Your task to perform on an android device: delete location history Image 0: 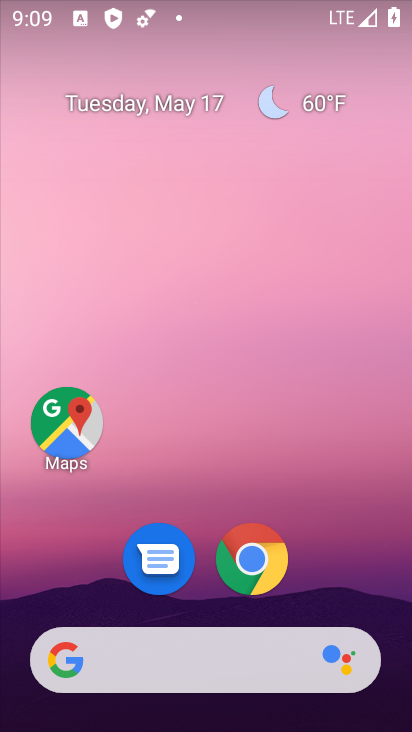
Step 0: drag from (215, 603) to (269, 157)
Your task to perform on an android device: delete location history Image 1: 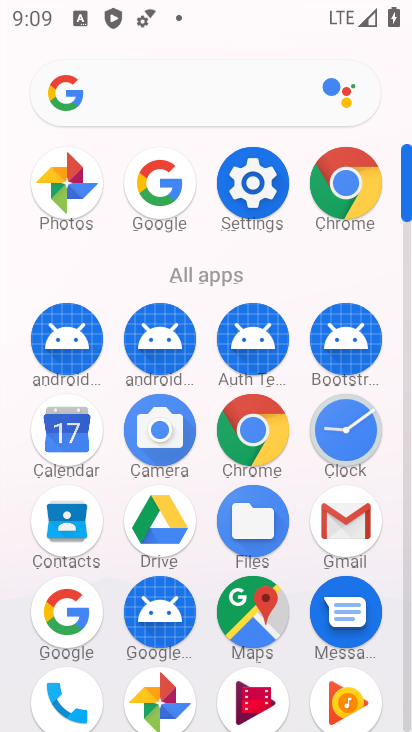
Step 1: click (272, 167)
Your task to perform on an android device: delete location history Image 2: 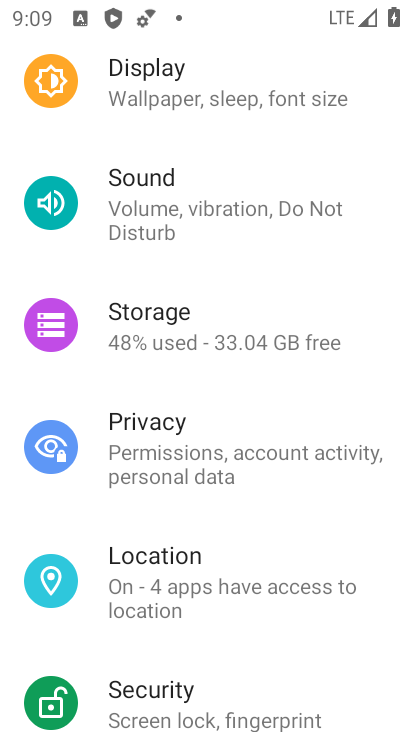
Step 2: press home button
Your task to perform on an android device: delete location history Image 3: 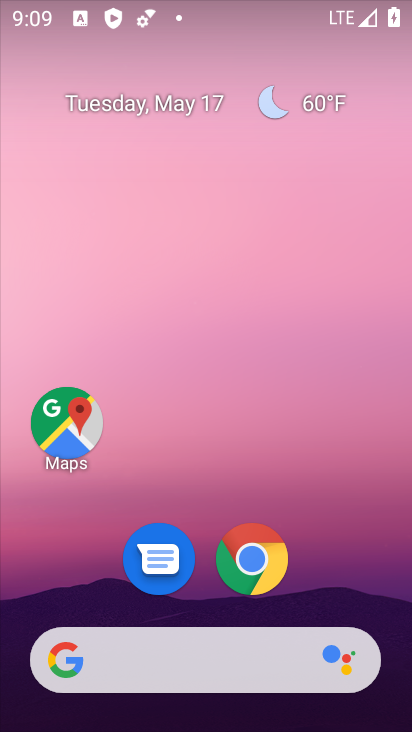
Step 3: click (81, 438)
Your task to perform on an android device: delete location history Image 4: 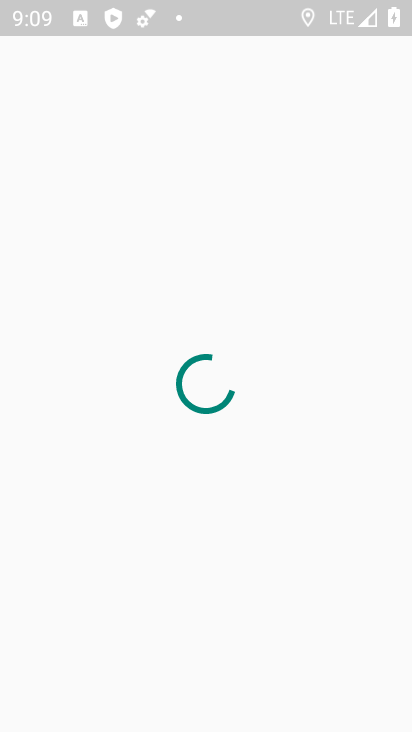
Step 4: click (63, 87)
Your task to perform on an android device: delete location history Image 5: 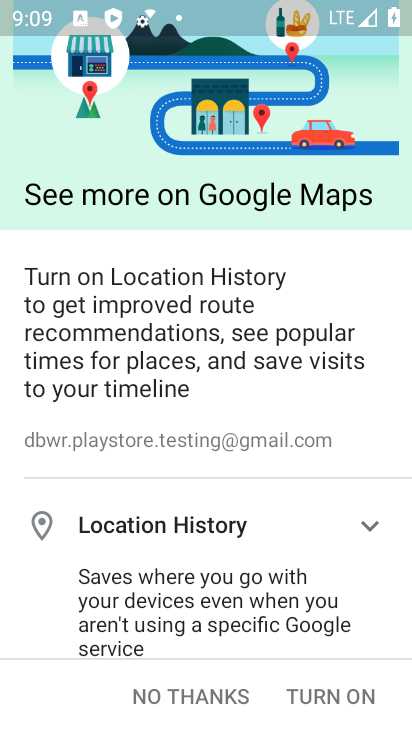
Step 5: click (320, 673)
Your task to perform on an android device: delete location history Image 6: 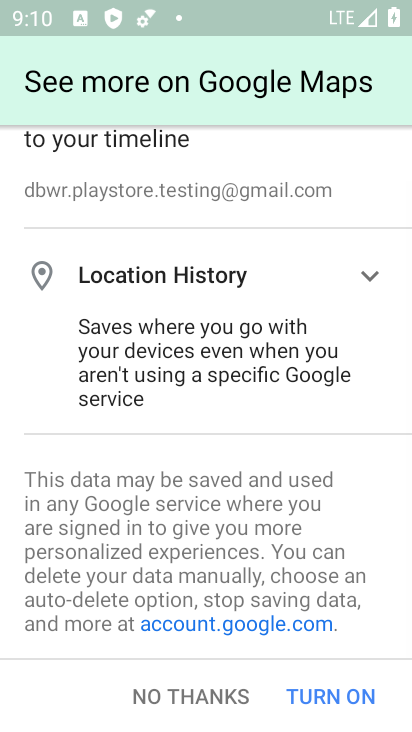
Step 6: click (320, 674)
Your task to perform on an android device: delete location history Image 7: 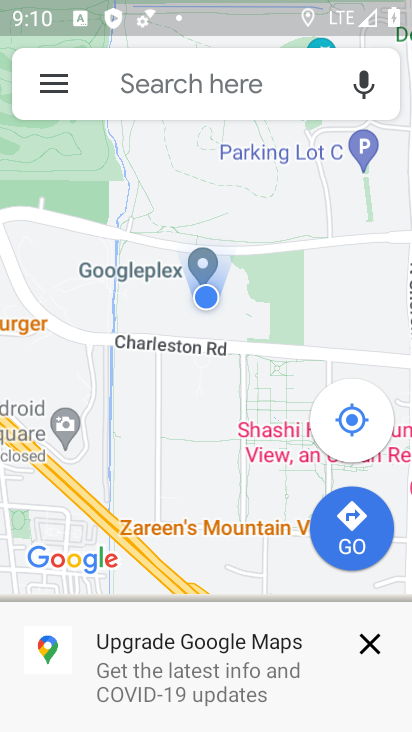
Step 7: click (37, 87)
Your task to perform on an android device: delete location history Image 8: 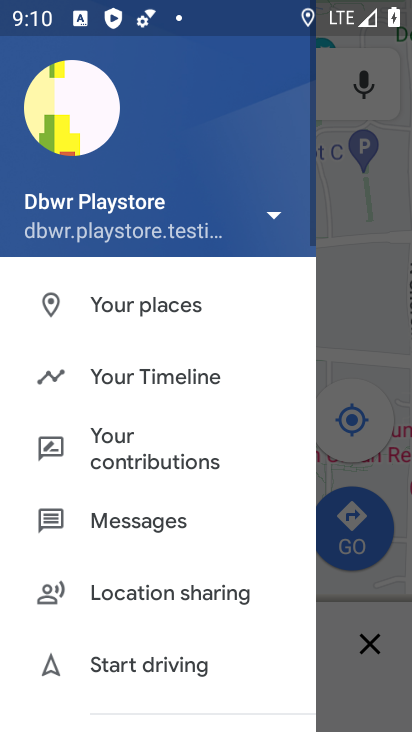
Step 8: click (128, 366)
Your task to perform on an android device: delete location history Image 9: 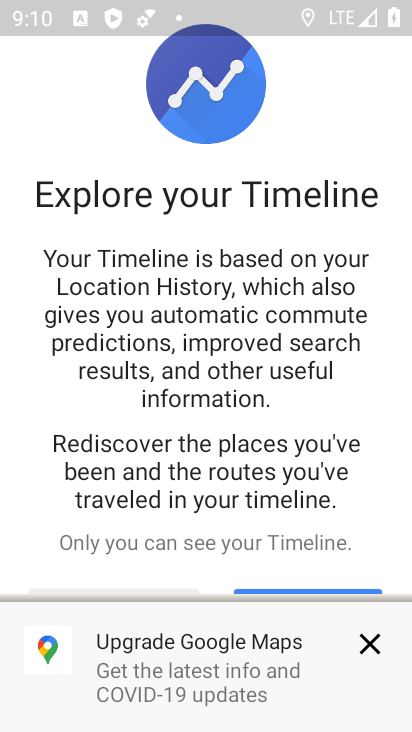
Step 9: click (366, 644)
Your task to perform on an android device: delete location history Image 10: 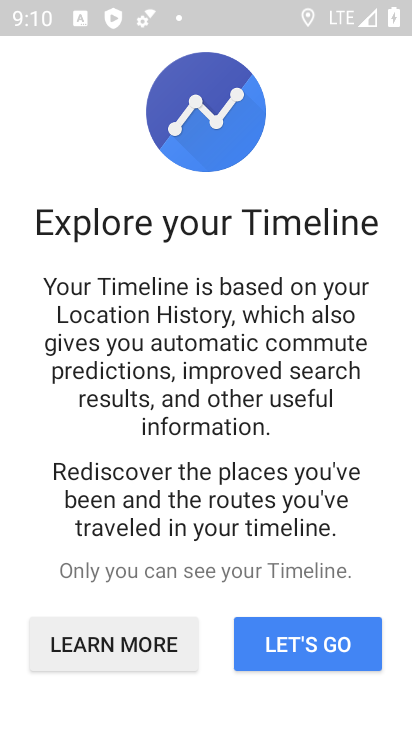
Step 10: click (345, 648)
Your task to perform on an android device: delete location history Image 11: 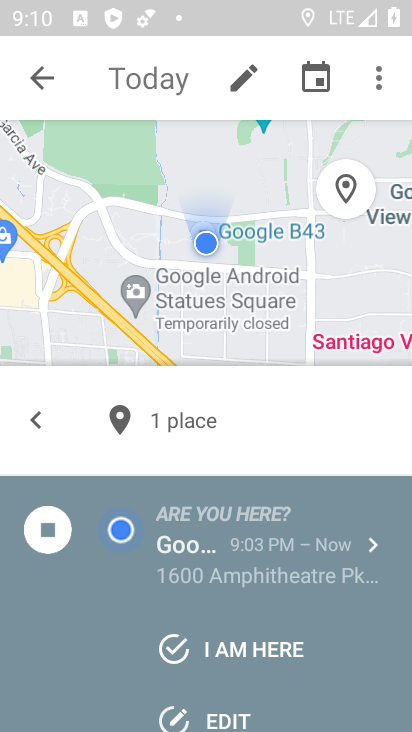
Step 11: click (378, 69)
Your task to perform on an android device: delete location history Image 12: 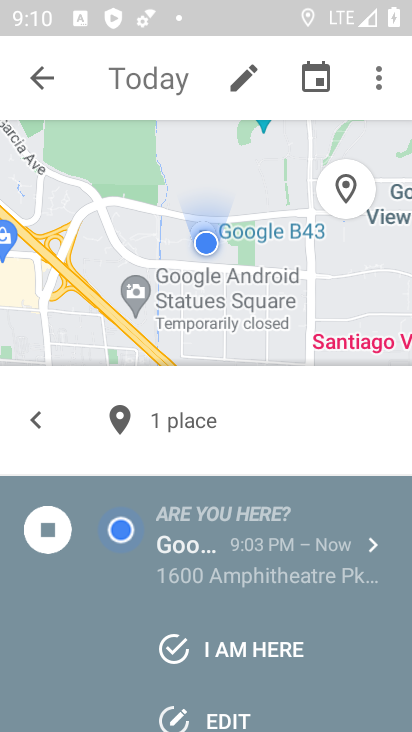
Step 12: click (376, 75)
Your task to perform on an android device: delete location history Image 13: 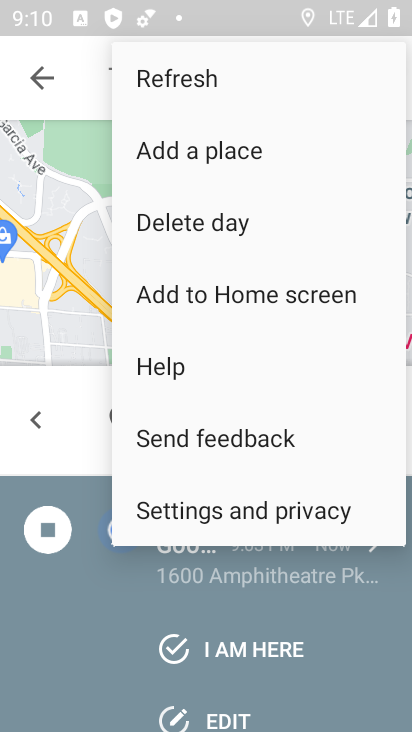
Step 13: click (194, 504)
Your task to perform on an android device: delete location history Image 14: 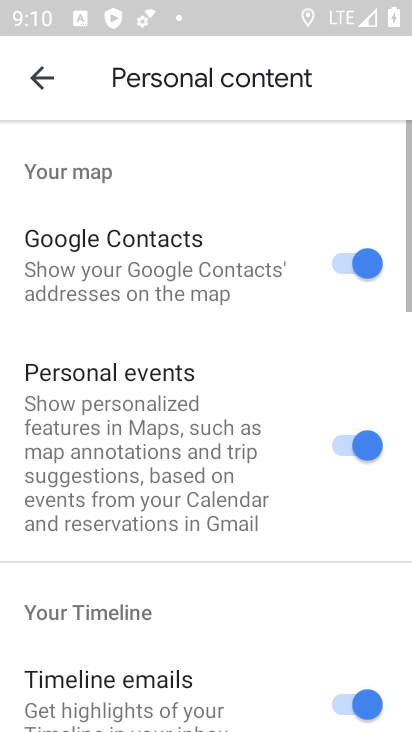
Step 14: drag from (221, 630) to (232, 343)
Your task to perform on an android device: delete location history Image 15: 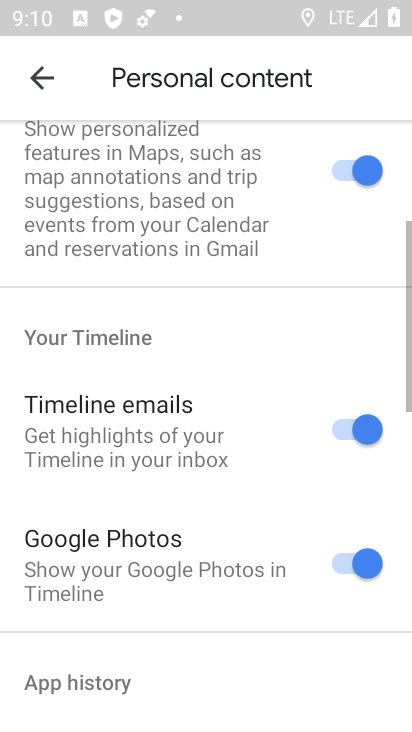
Step 15: drag from (218, 527) to (219, 248)
Your task to perform on an android device: delete location history Image 16: 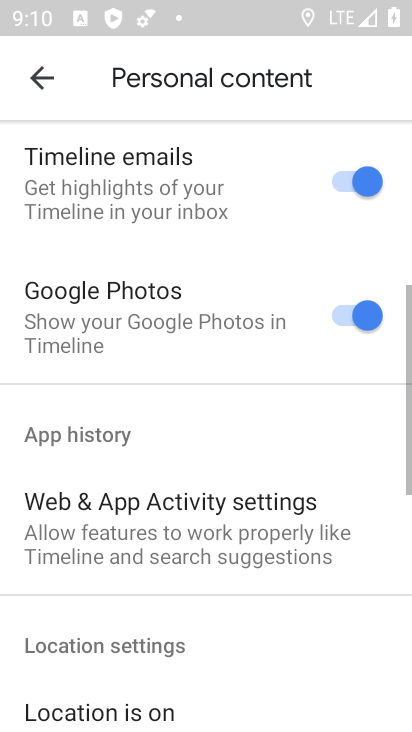
Step 16: drag from (181, 488) to (181, 262)
Your task to perform on an android device: delete location history Image 17: 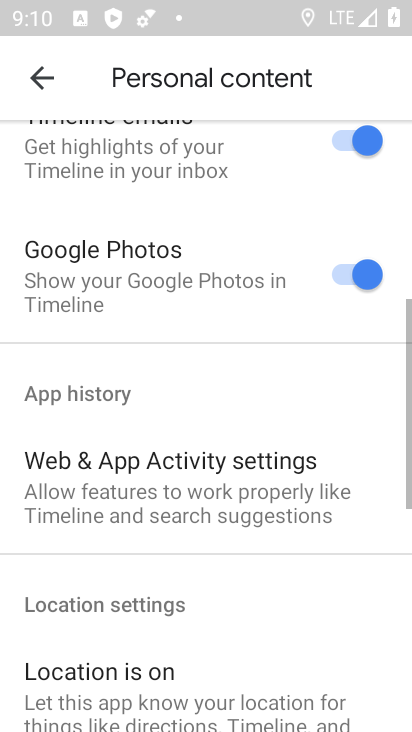
Step 17: drag from (185, 621) to (196, 328)
Your task to perform on an android device: delete location history Image 18: 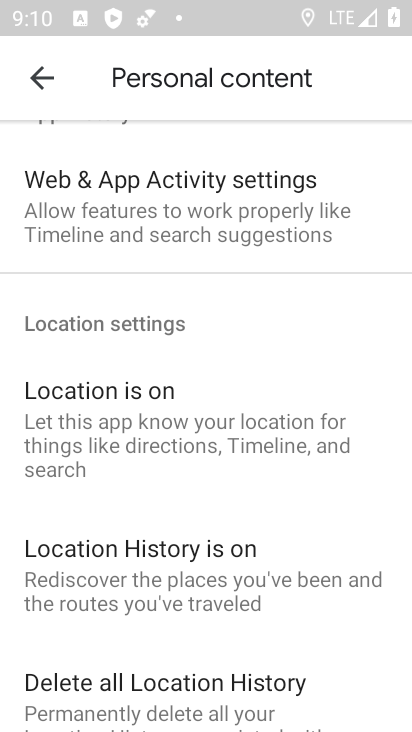
Step 18: drag from (197, 607) to (210, 390)
Your task to perform on an android device: delete location history Image 19: 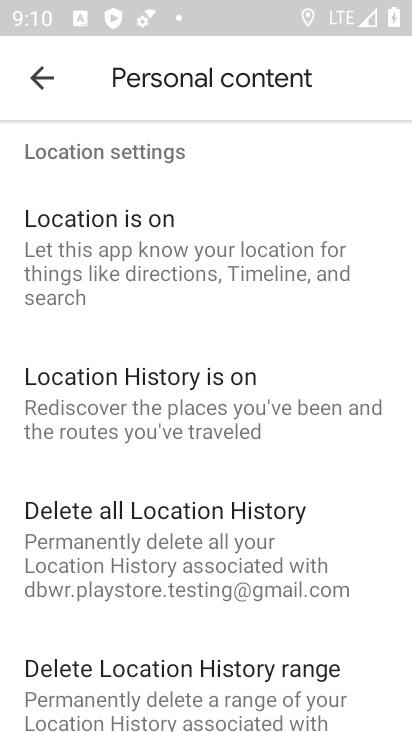
Step 19: click (209, 541)
Your task to perform on an android device: delete location history Image 20: 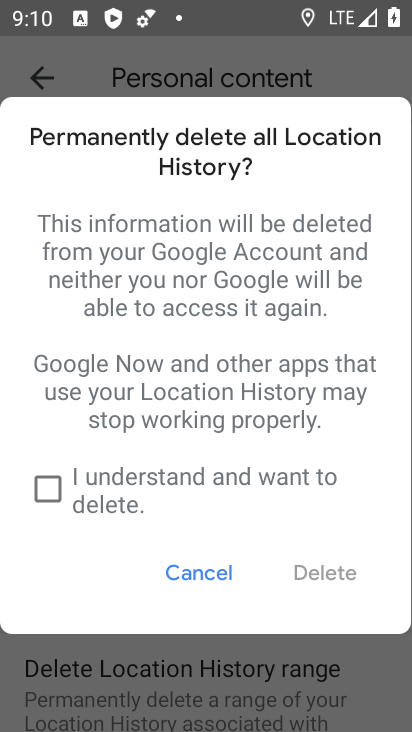
Step 20: click (98, 484)
Your task to perform on an android device: delete location history Image 21: 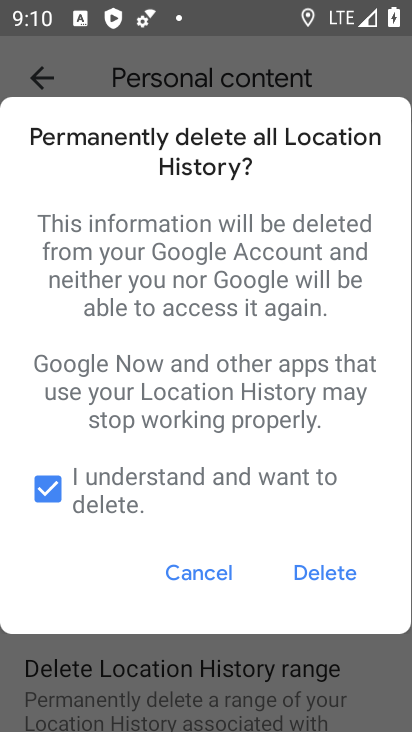
Step 21: click (320, 575)
Your task to perform on an android device: delete location history Image 22: 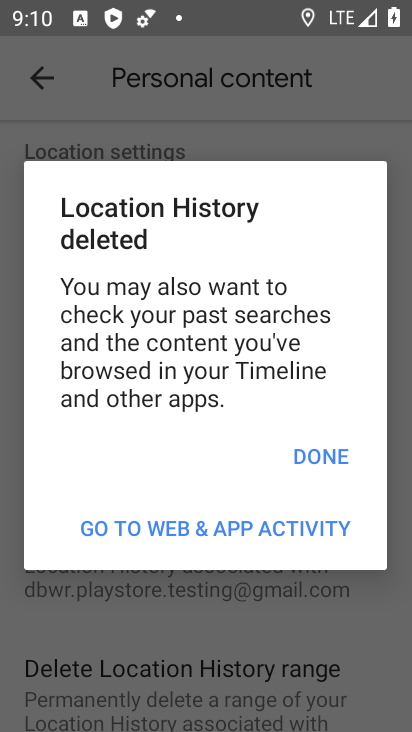
Step 22: task complete